Your task to perform on an android device: Search for seafood restaurants on Google Maps Image 0: 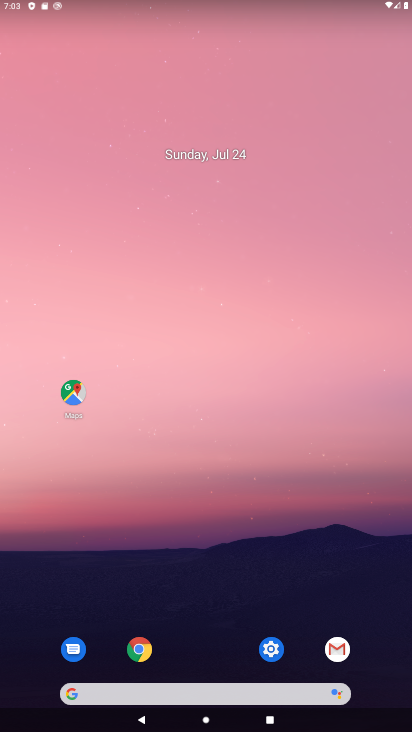
Step 0: click (68, 396)
Your task to perform on an android device: Search for seafood restaurants on Google Maps Image 1: 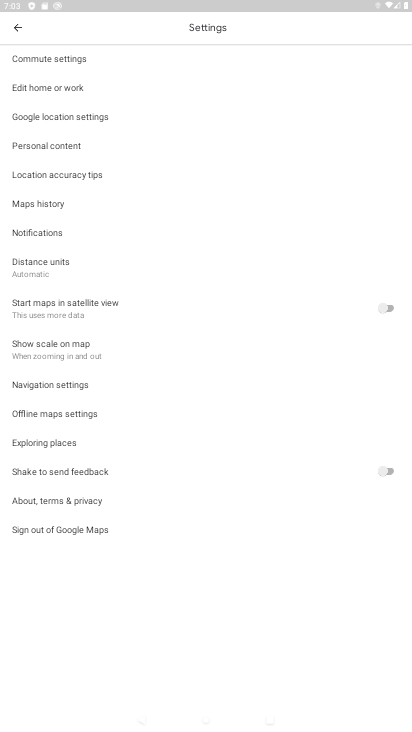
Step 1: click (26, 36)
Your task to perform on an android device: Search for seafood restaurants on Google Maps Image 2: 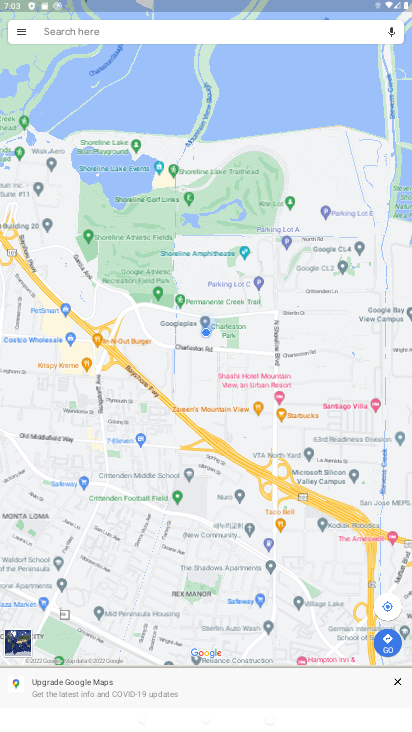
Step 2: click (184, 34)
Your task to perform on an android device: Search for seafood restaurants on Google Maps Image 3: 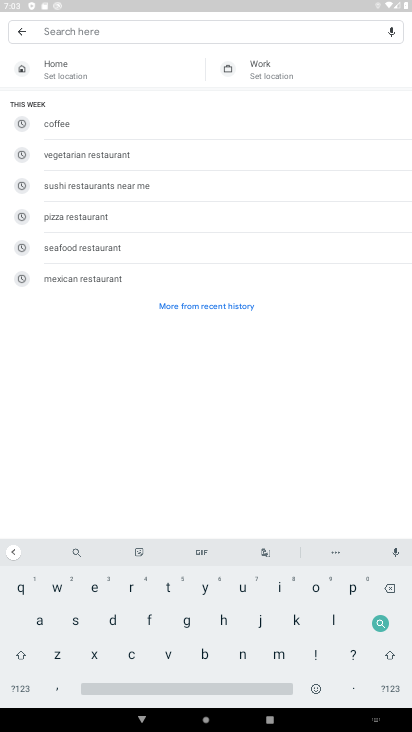
Step 3: click (123, 245)
Your task to perform on an android device: Search for seafood restaurants on Google Maps Image 4: 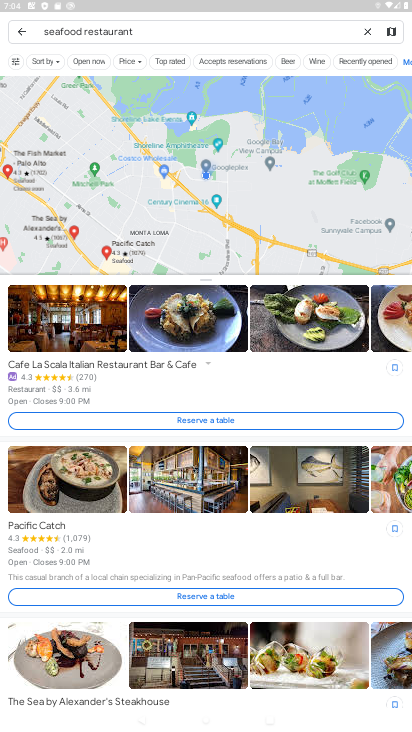
Step 4: task complete